Your task to perform on an android device: uninstall "The Home Depot" Image 0: 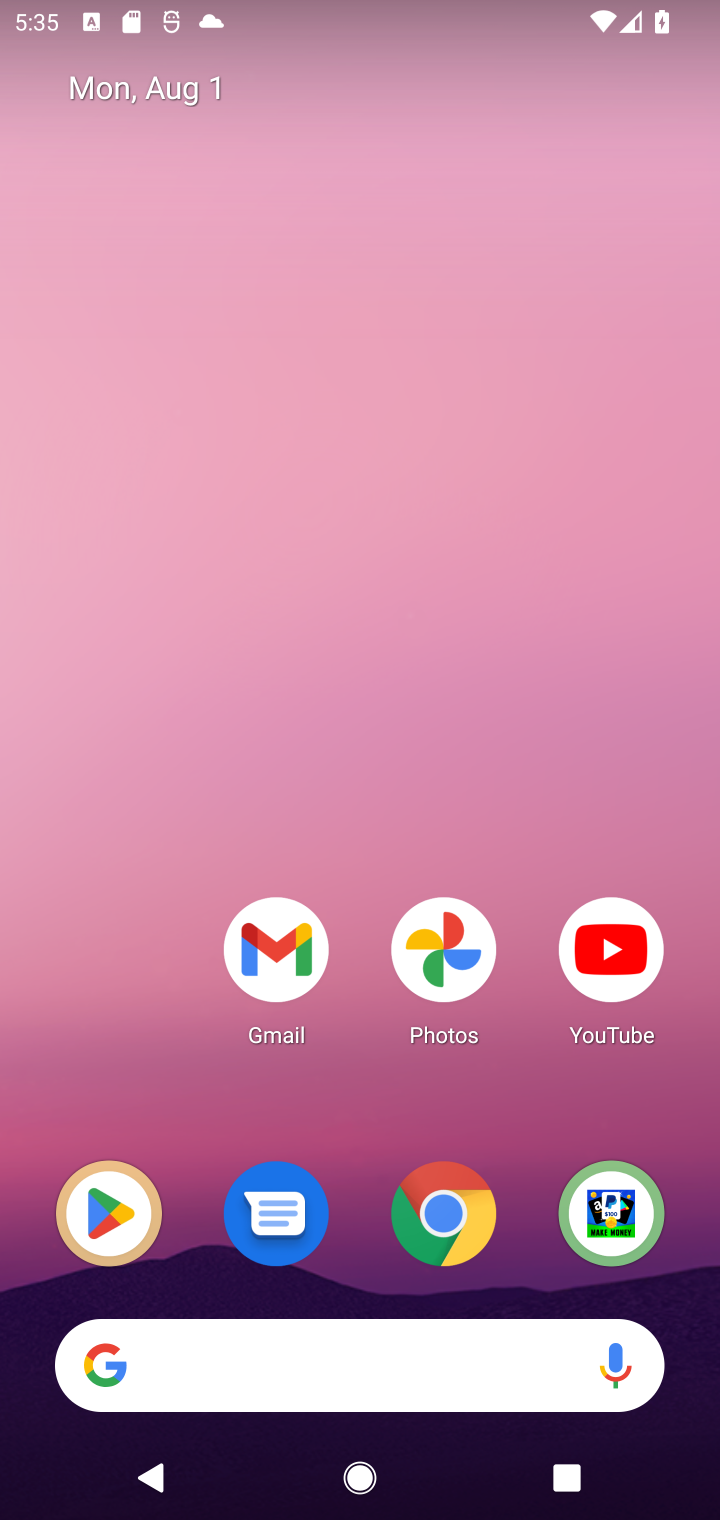
Step 0: drag from (536, 1111) to (496, 0)
Your task to perform on an android device: uninstall "The Home Depot" Image 1: 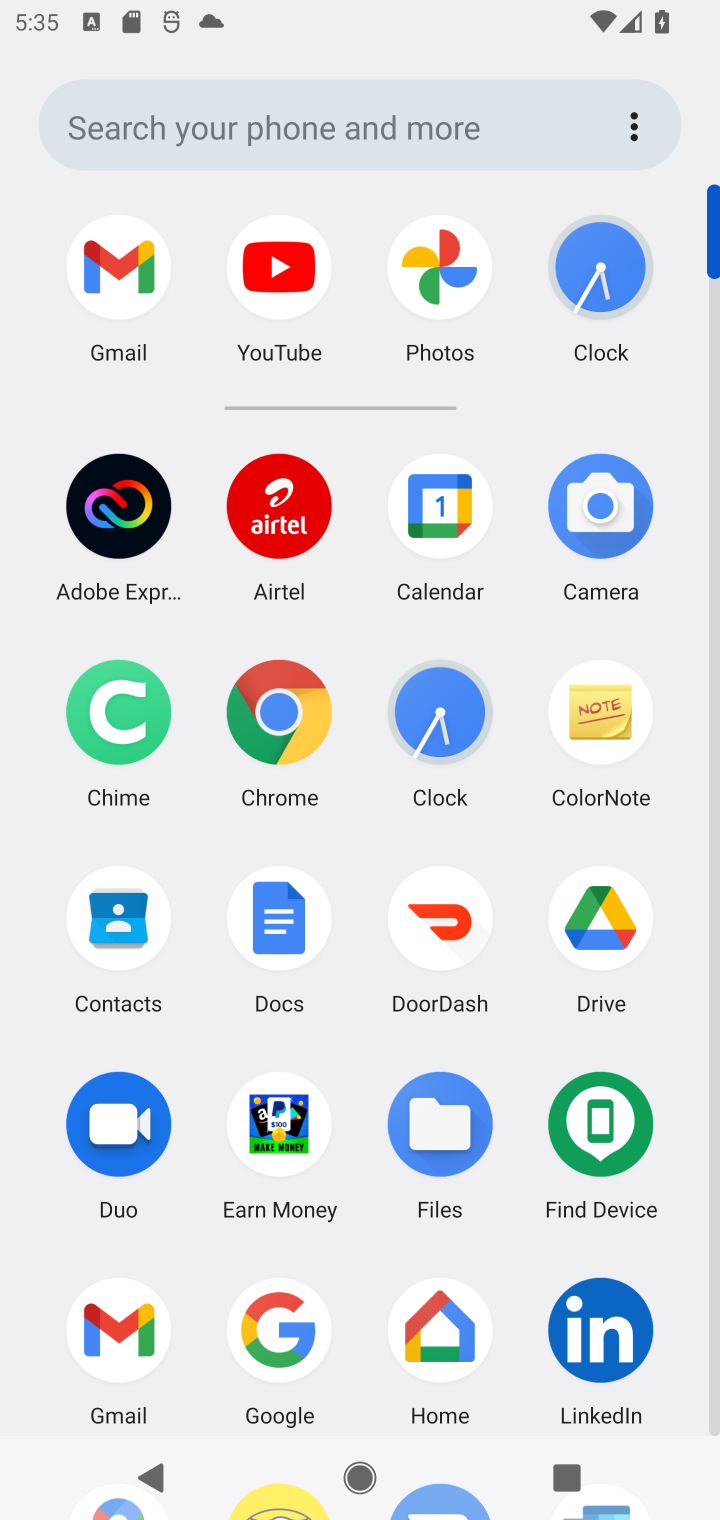
Step 1: drag from (360, 1139) to (381, 220)
Your task to perform on an android device: uninstall "The Home Depot" Image 2: 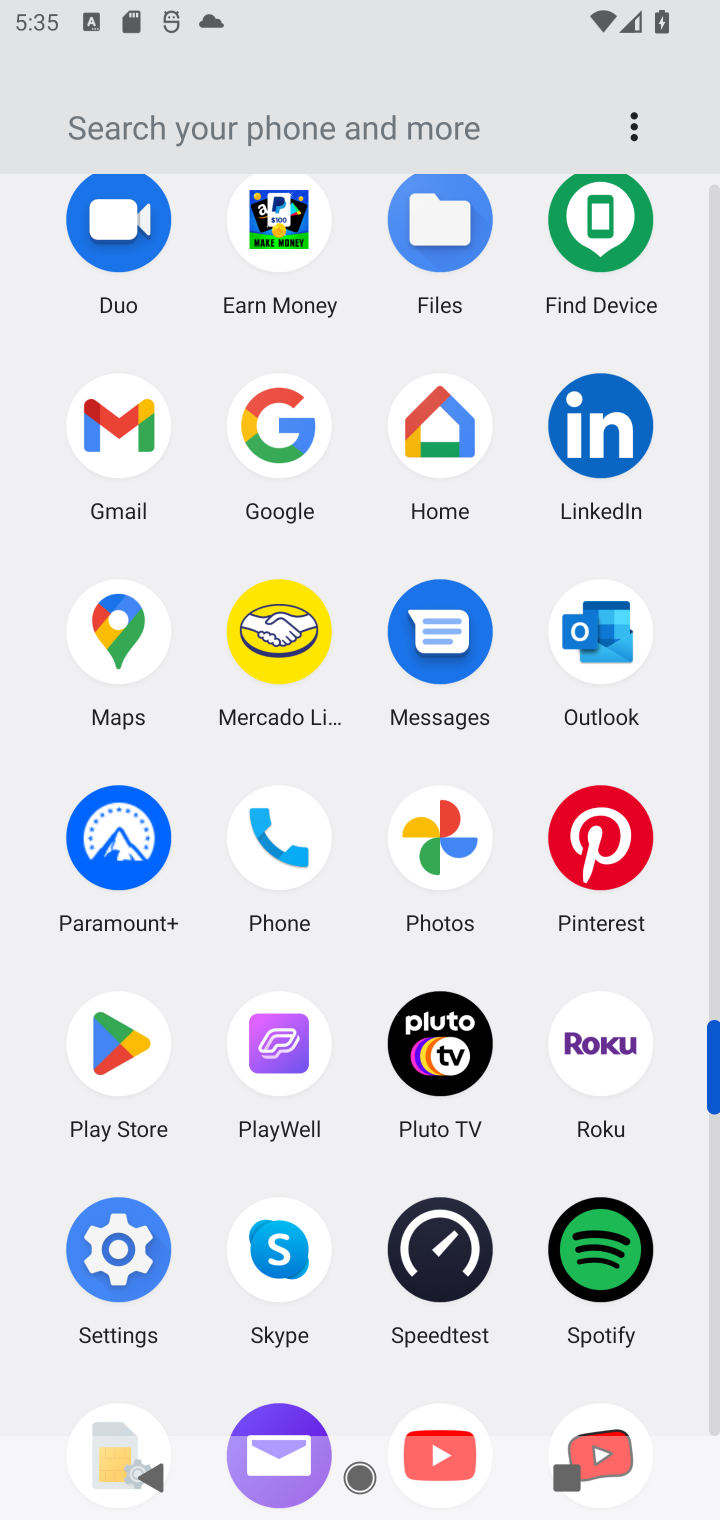
Step 2: click (86, 1063)
Your task to perform on an android device: uninstall "The Home Depot" Image 3: 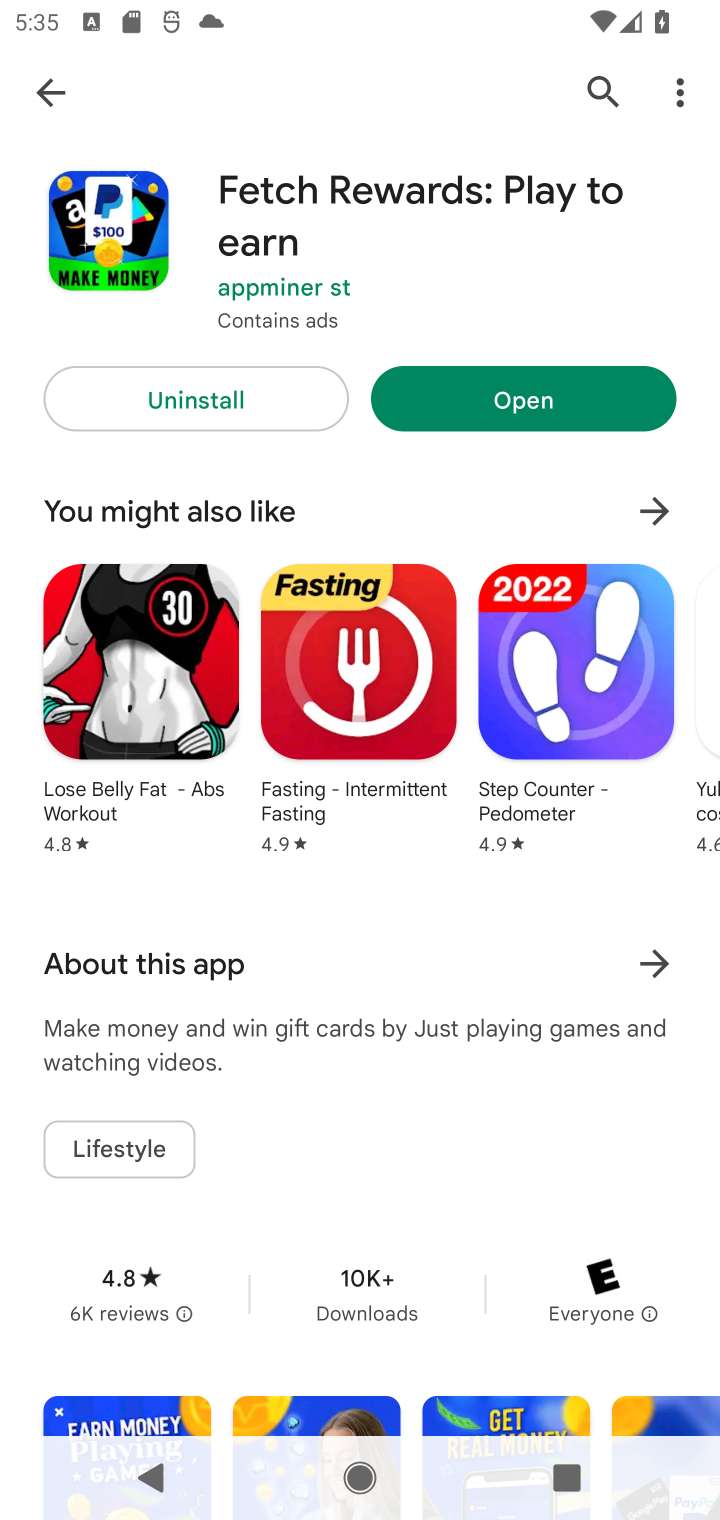
Step 3: click (591, 96)
Your task to perform on an android device: uninstall "The Home Depot" Image 4: 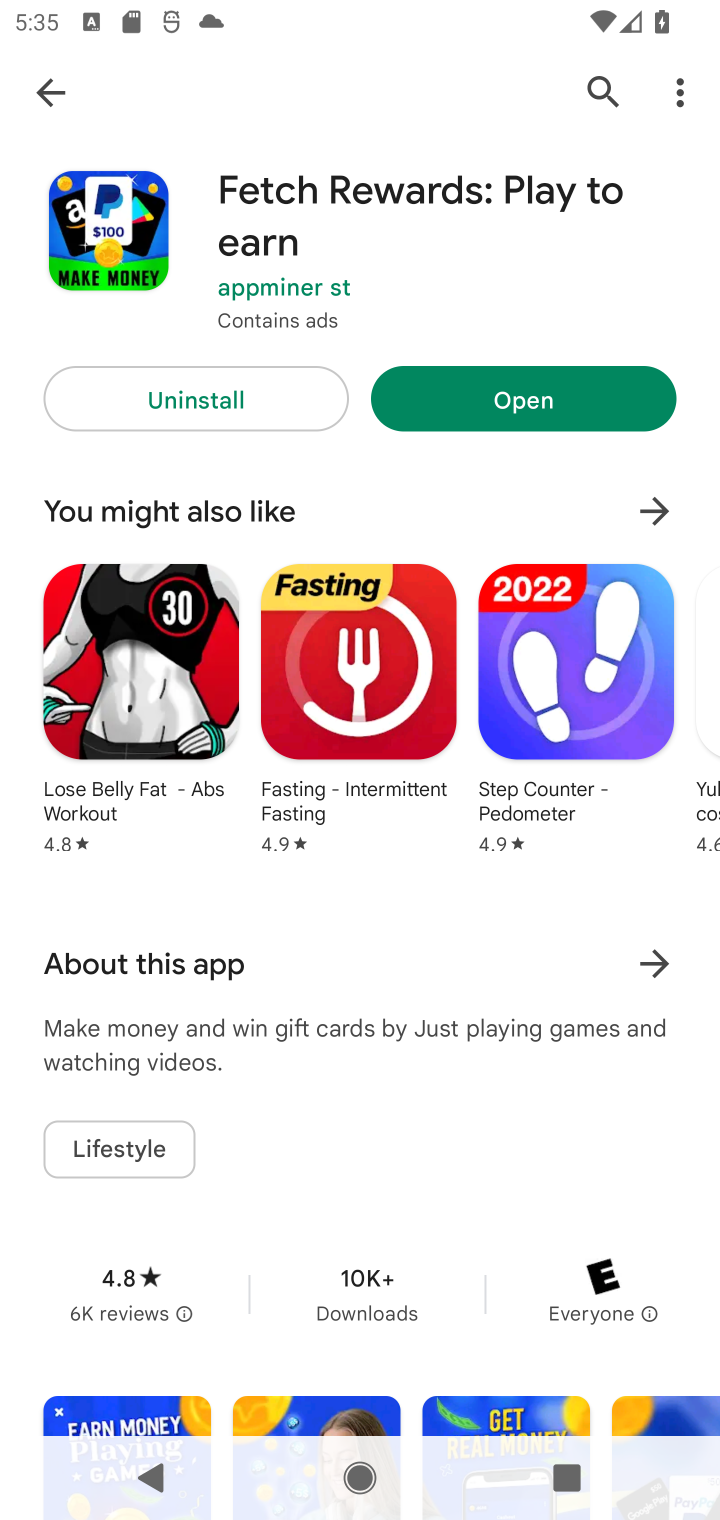
Step 4: click (595, 91)
Your task to perform on an android device: uninstall "The Home Depot" Image 5: 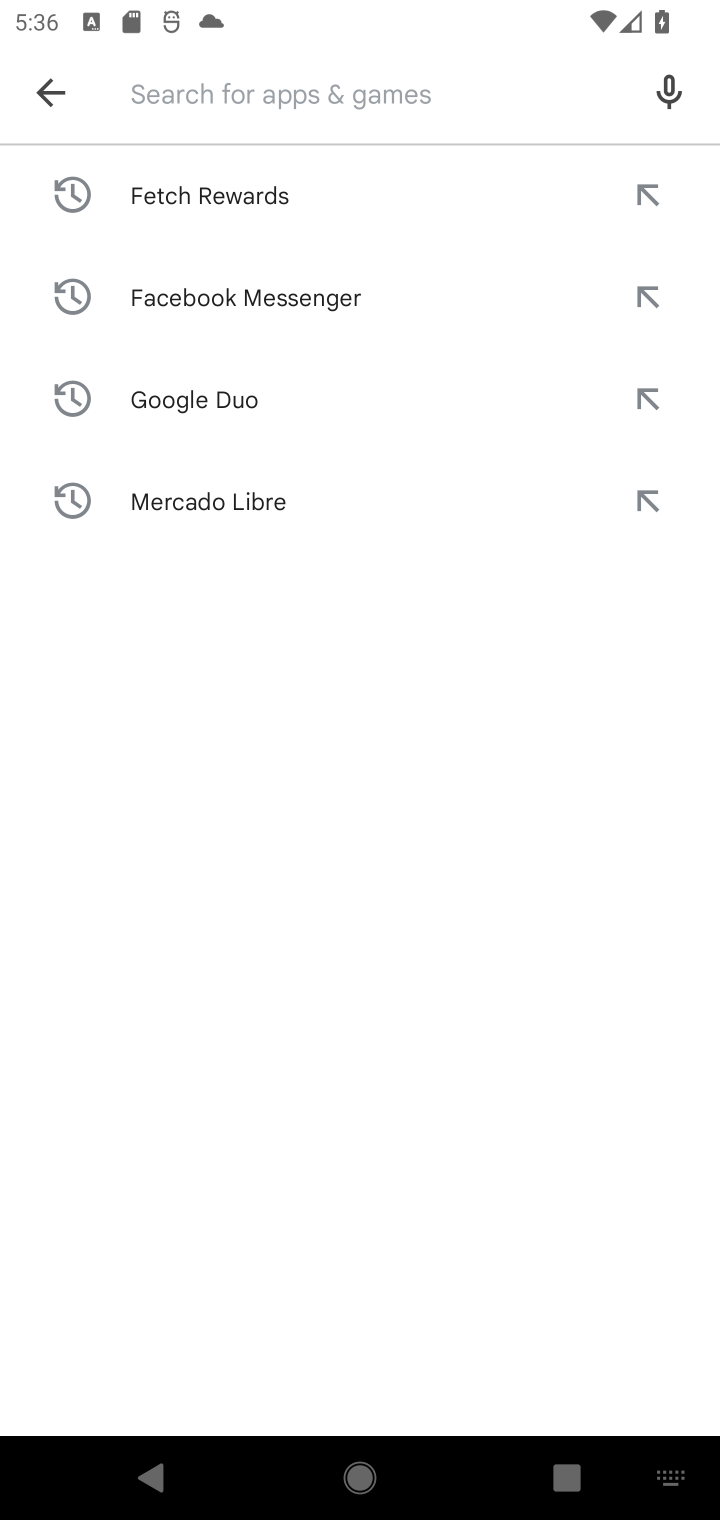
Step 5: type "The Home Depot"
Your task to perform on an android device: uninstall "The Home Depot" Image 6: 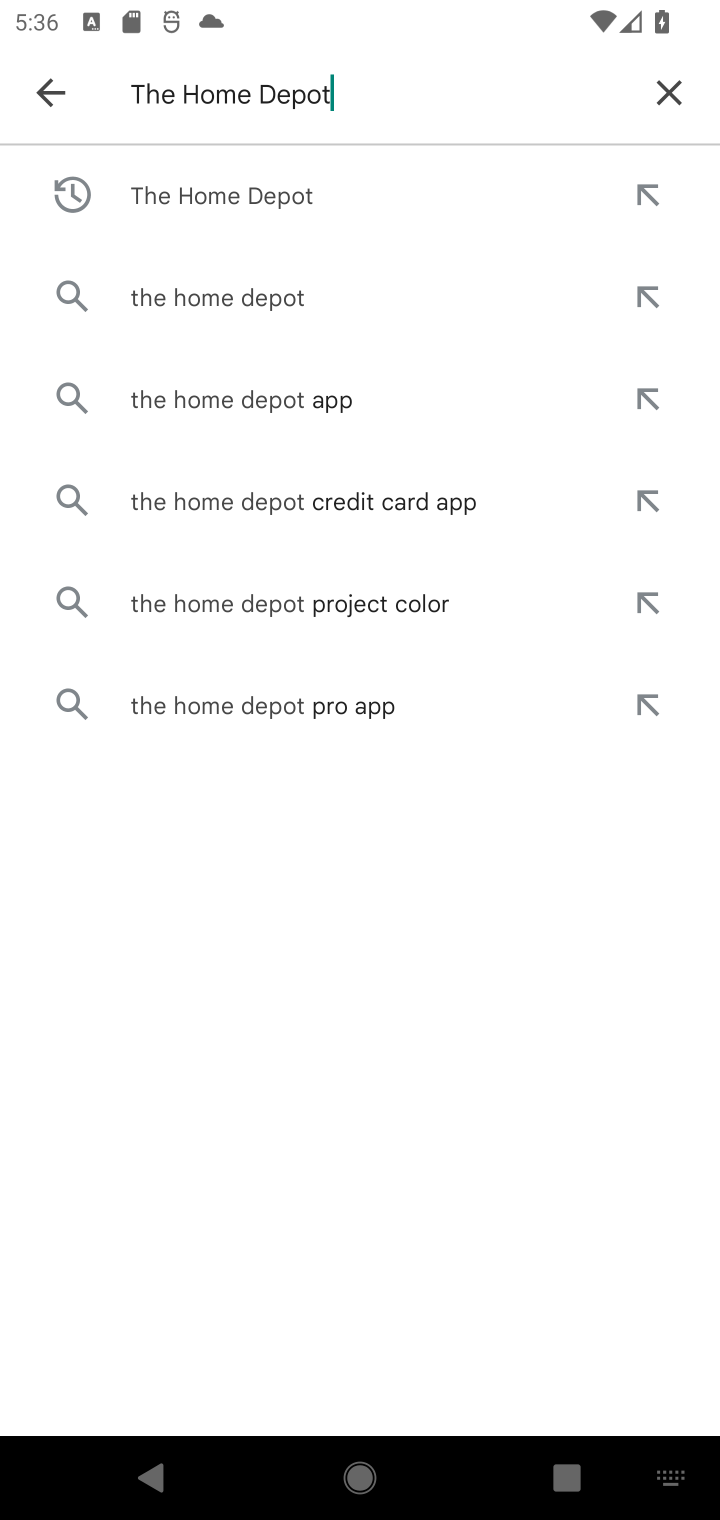
Step 6: press enter
Your task to perform on an android device: uninstall "The Home Depot" Image 7: 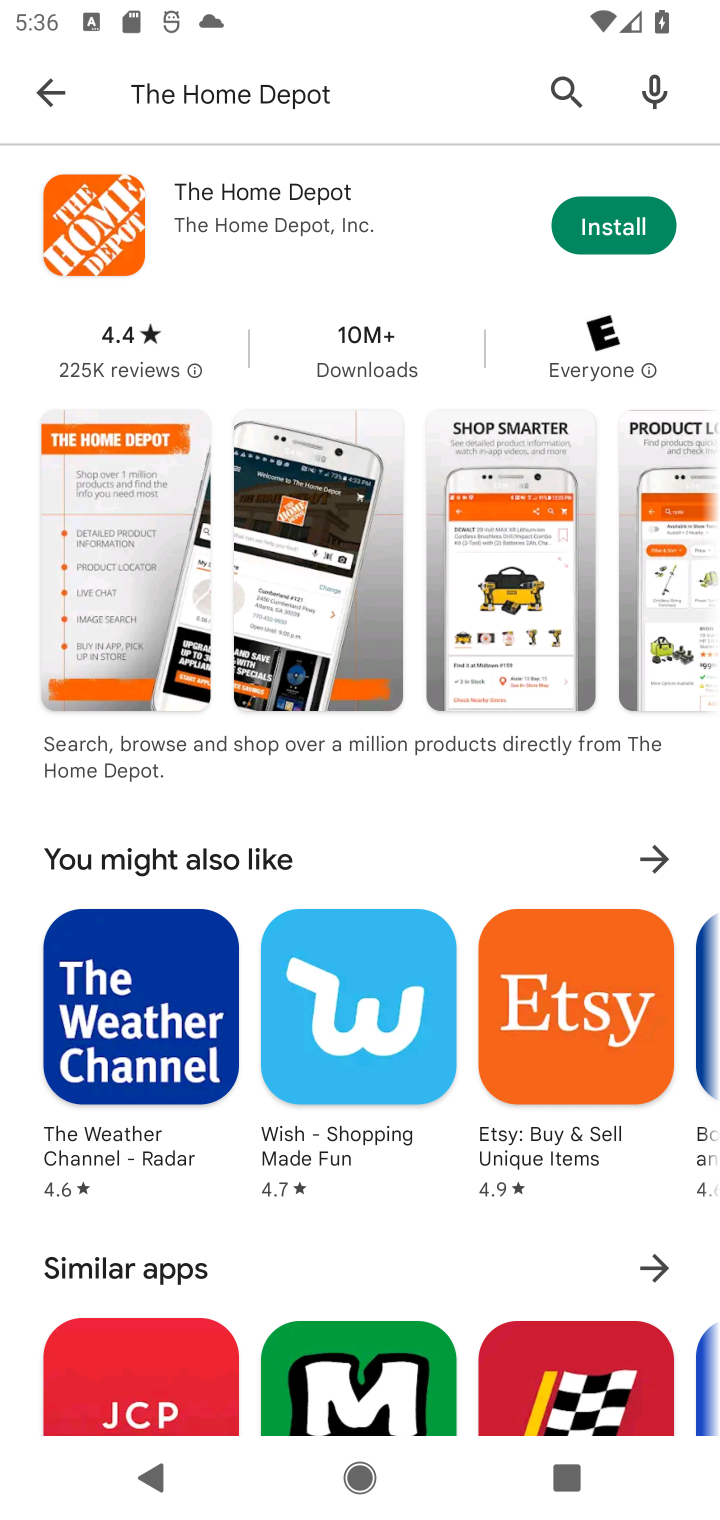
Step 7: task complete